Your task to perform on an android device: Open calendar and show me the second week of next month Image 0: 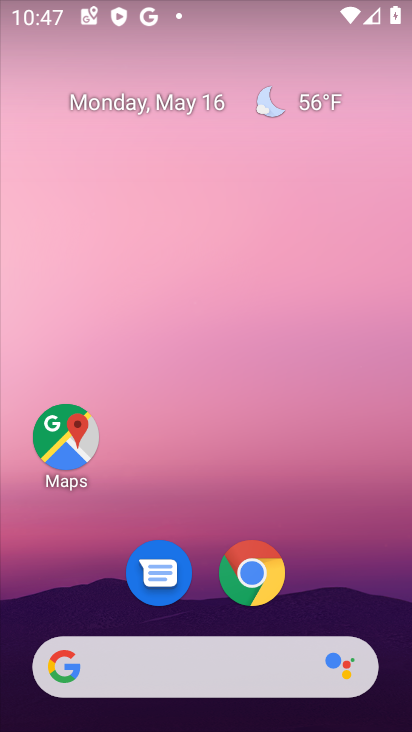
Step 0: drag from (302, 421) to (267, 128)
Your task to perform on an android device: Open calendar and show me the second week of next month Image 1: 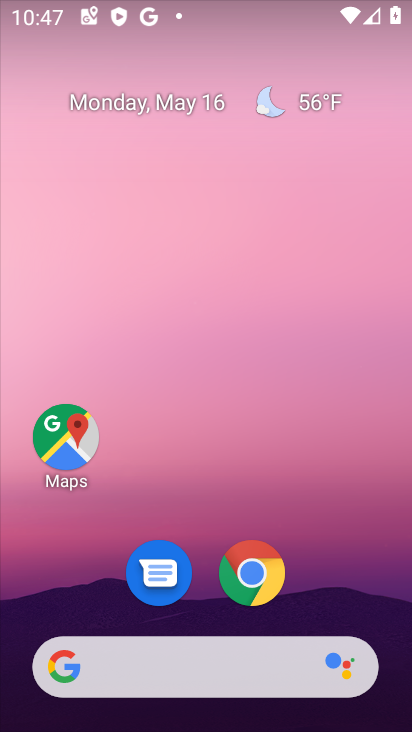
Step 1: drag from (327, 530) to (277, 163)
Your task to perform on an android device: Open calendar and show me the second week of next month Image 2: 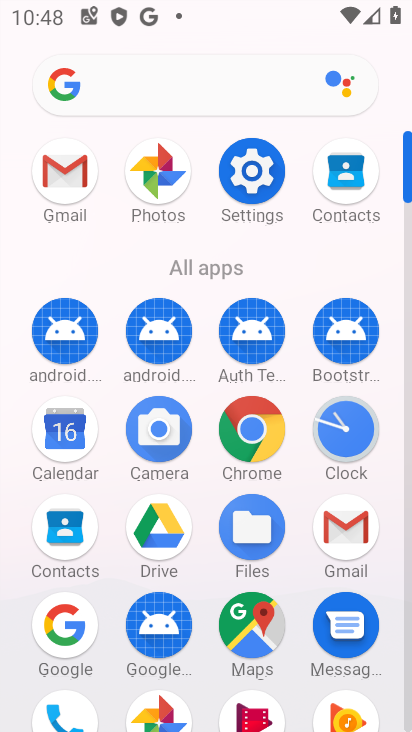
Step 2: click (60, 427)
Your task to perform on an android device: Open calendar and show me the second week of next month Image 3: 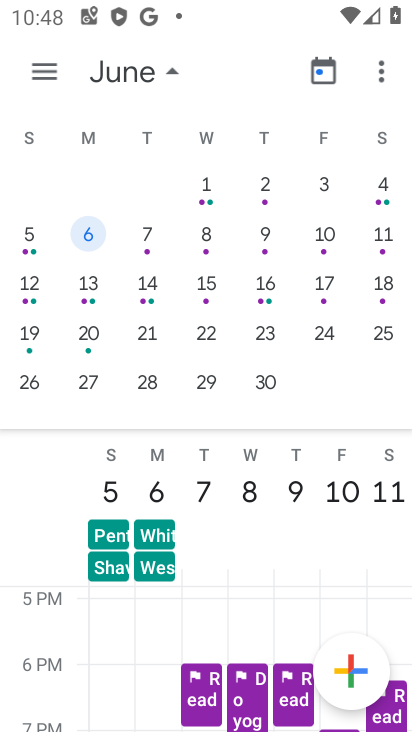
Step 3: click (297, 263)
Your task to perform on an android device: Open calendar and show me the second week of next month Image 4: 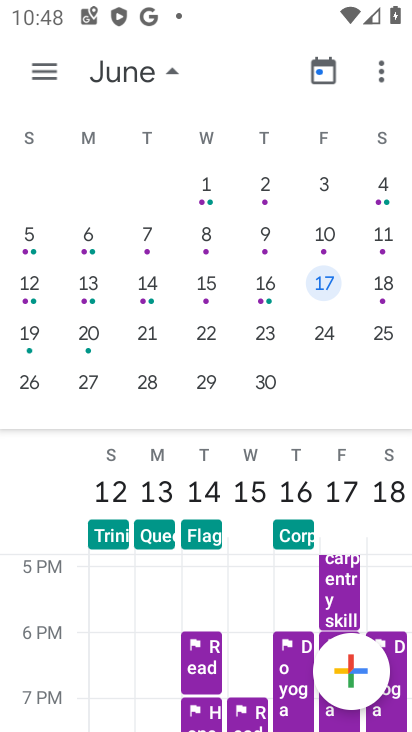
Step 4: click (141, 244)
Your task to perform on an android device: Open calendar and show me the second week of next month Image 5: 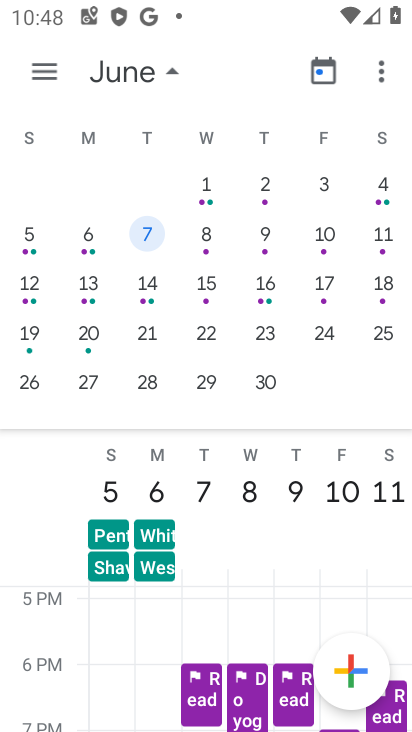
Step 5: click (93, 282)
Your task to perform on an android device: Open calendar and show me the second week of next month Image 6: 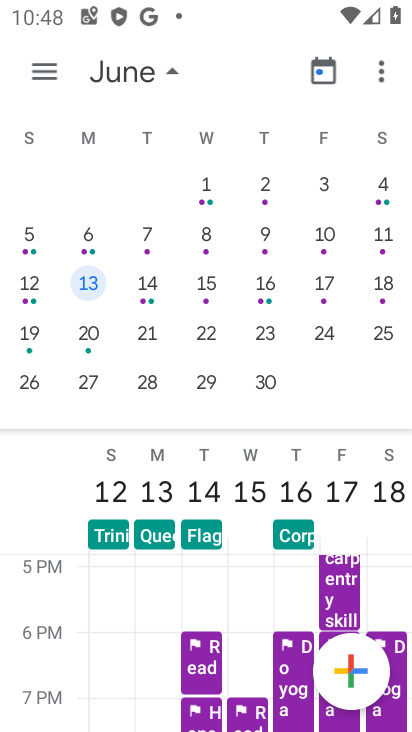
Step 6: task complete